Your task to perform on an android device: check out phone information Image 0: 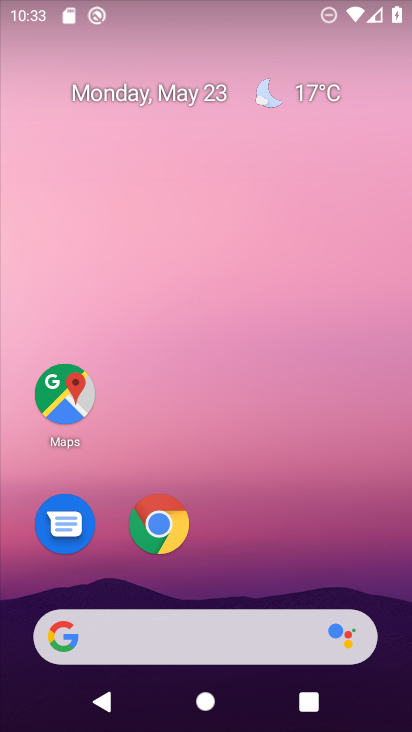
Step 0: drag from (208, 569) to (233, 55)
Your task to perform on an android device: check out phone information Image 1: 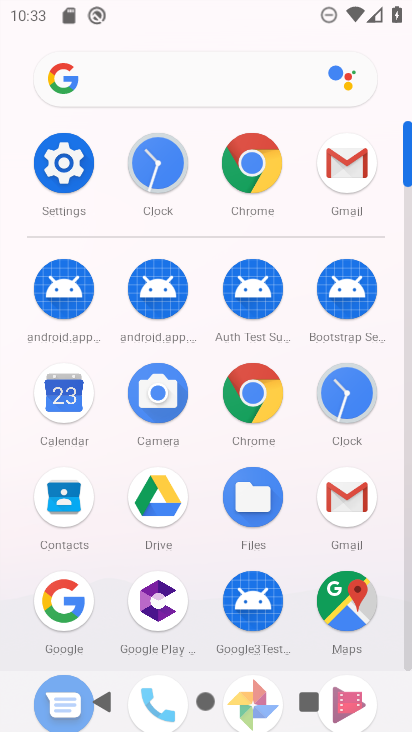
Step 1: click (80, 169)
Your task to perform on an android device: check out phone information Image 2: 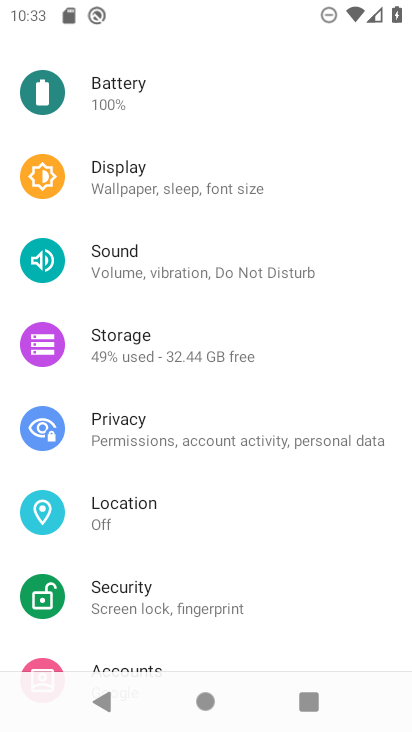
Step 2: drag from (187, 610) to (192, 248)
Your task to perform on an android device: check out phone information Image 3: 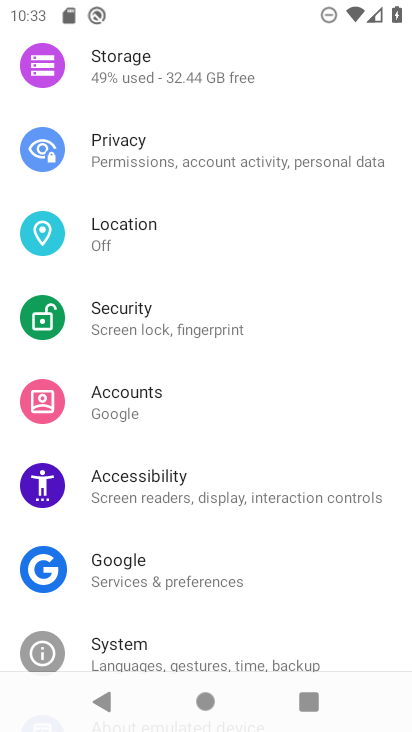
Step 3: drag from (209, 587) to (192, 296)
Your task to perform on an android device: check out phone information Image 4: 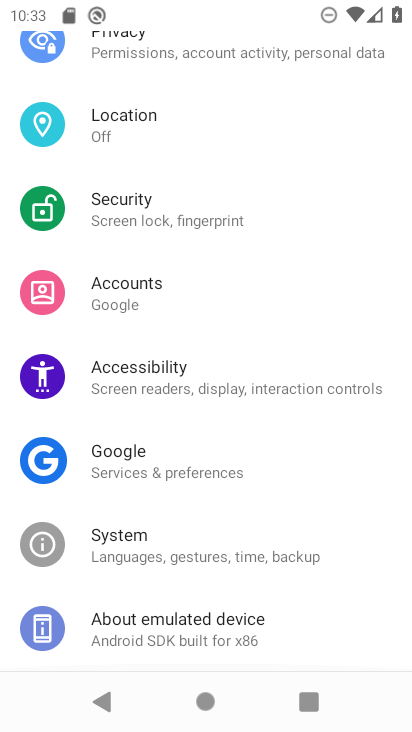
Step 4: drag from (194, 501) to (194, 270)
Your task to perform on an android device: check out phone information Image 5: 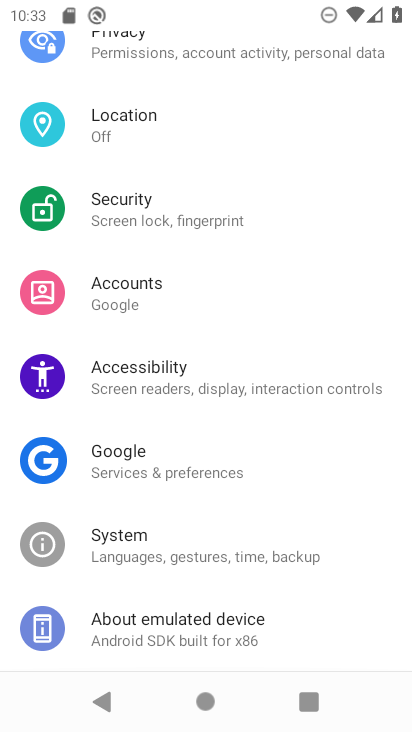
Step 5: drag from (216, 589) to (227, 278)
Your task to perform on an android device: check out phone information Image 6: 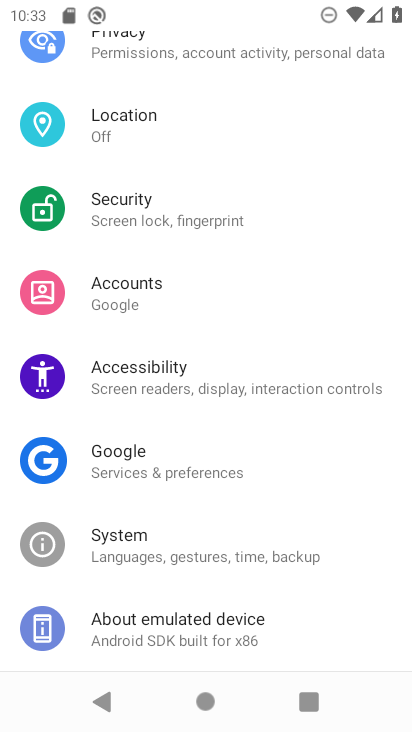
Step 6: click (201, 619)
Your task to perform on an android device: check out phone information Image 7: 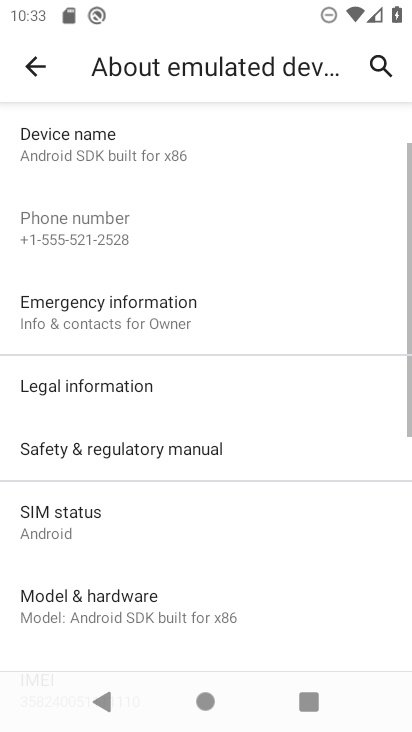
Step 7: task complete